Your task to perform on an android device: check out phone information Image 0: 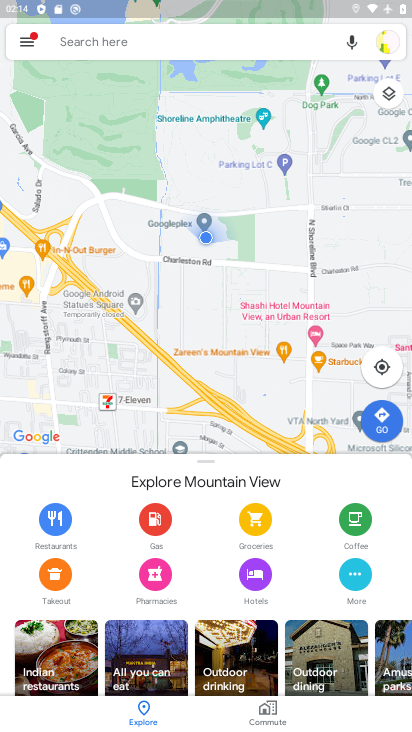
Step 0: press home button
Your task to perform on an android device: check out phone information Image 1: 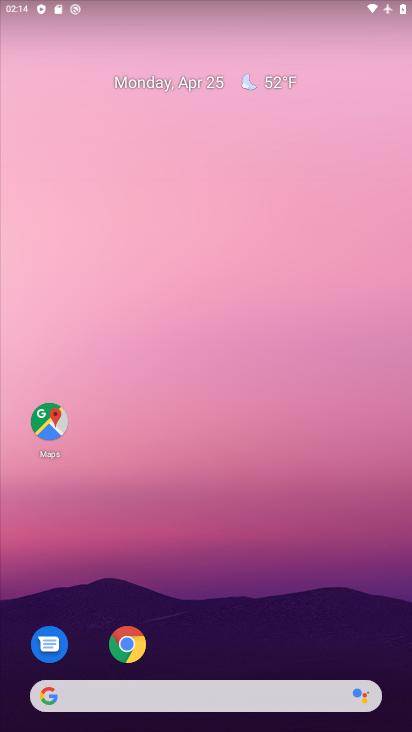
Step 1: drag from (232, 636) to (250, 81)
Your task to perform on an android device: check out phone information Image 2: 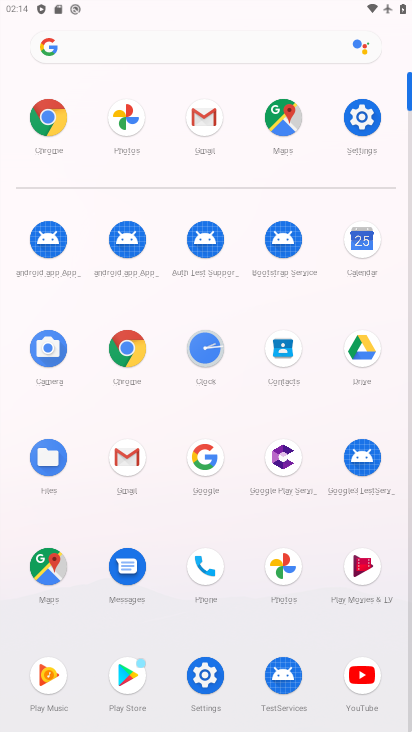
Step 2: click (355, 135)
Your task to perform on an android device: check out phone information Image 3: 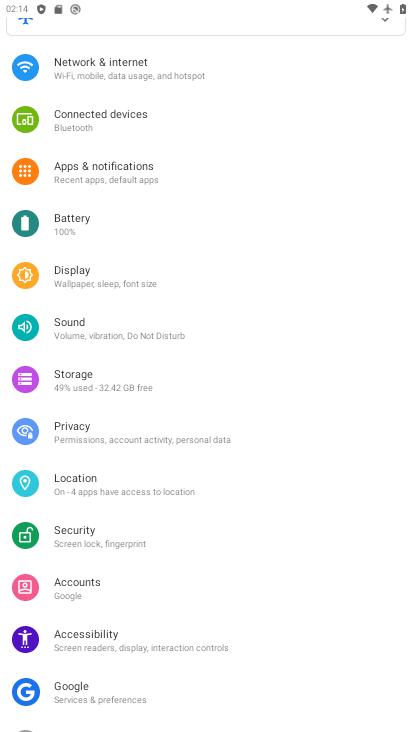
Step 3: drag from (108, 617) to (131, 501)
Your task to perform on an android device: check out phone information Image 4: 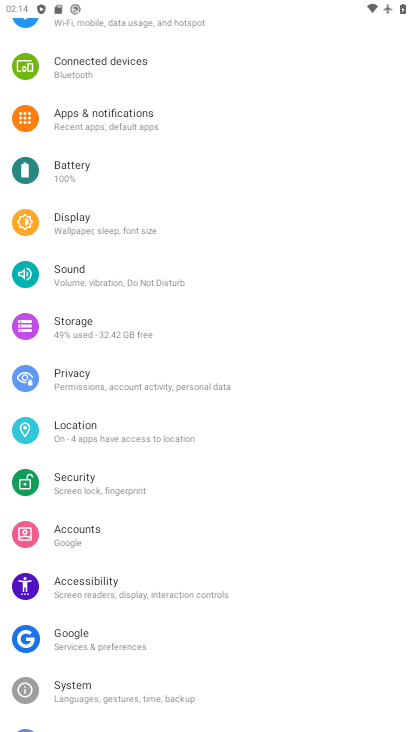
Step 4: drag from (152, 610) to (234, 186)
Your task to perform on an android device: check out phone information Image 5: 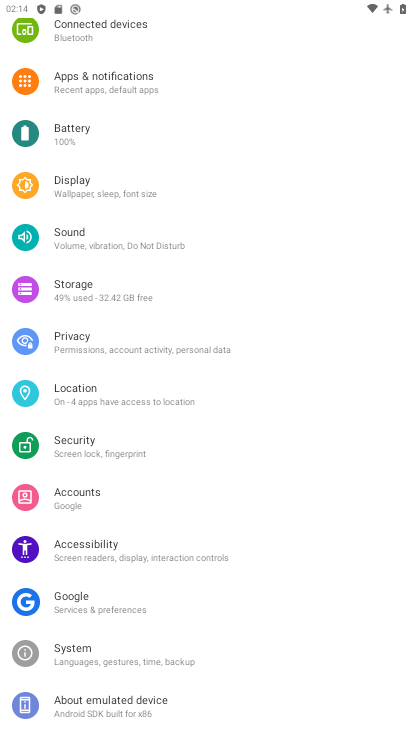
Step 5: drag from (224, 207) to (213, 547)
Your task to perform on an android device: check out phone information Image 6: 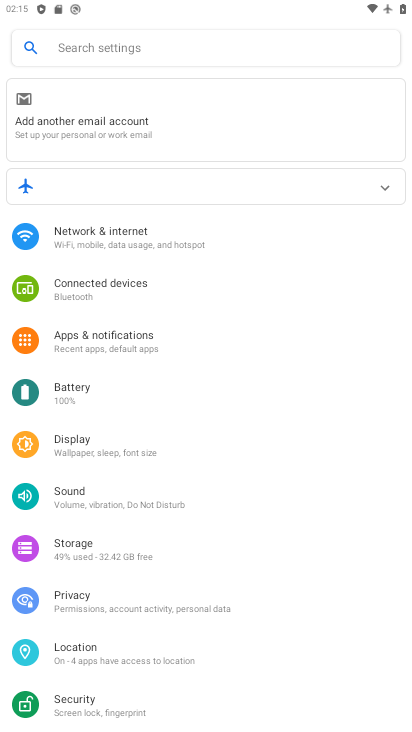
Step 6: drag from (167, 687) to (174, 248)
Your task to perform on an android device: check out phone information Image 7: 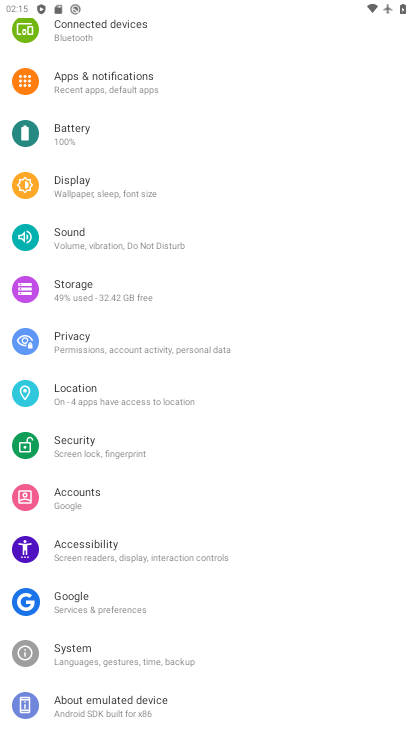
Step 7: click (149, 687)
Your task to perform on an android device: check out phone information Image 8: 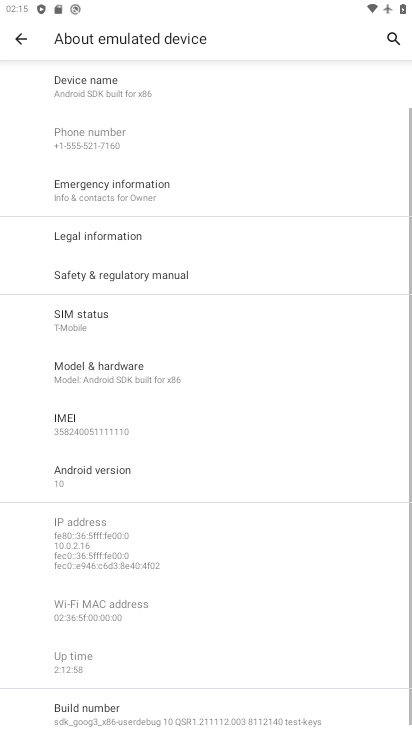
Step 8: task complete